Your task to perform on an android device: open device folders in google photos Image 0: 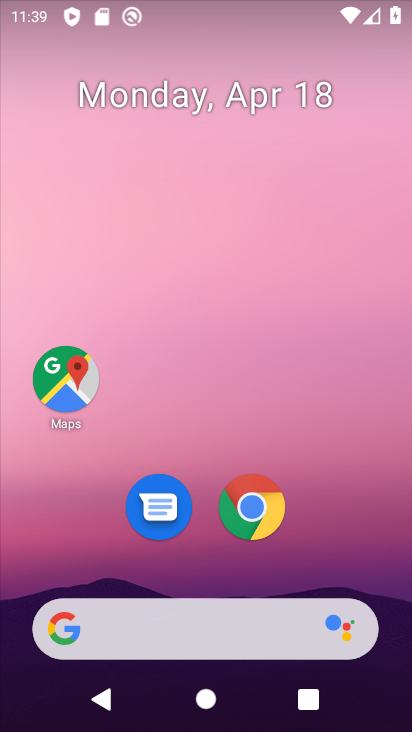
Step 0: drag from (202, 561) to (243, 16)
Your task to perform on an android device: open device folders in google photos Image 1: 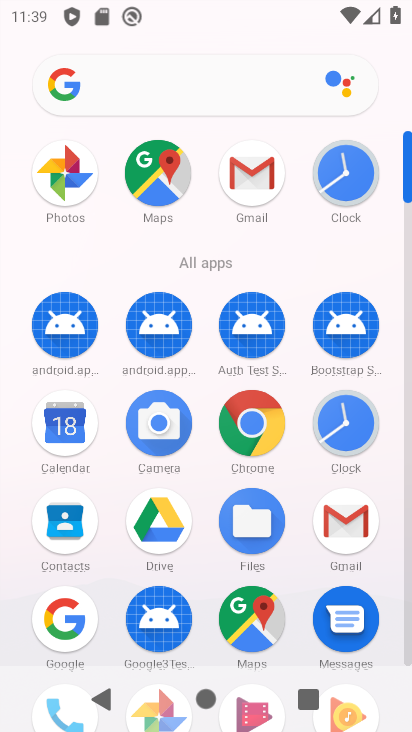
Step 1: drag from (206, 563) to (215, 155)
Your task to perform on an android device: open device folders in google photos Image 2: 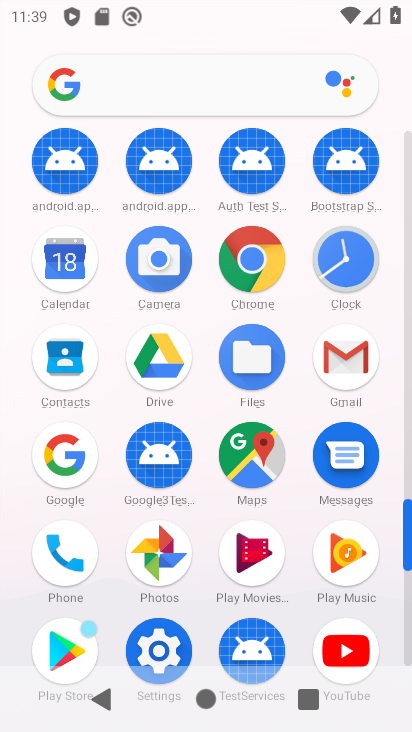
Step 2: click (156, 546)
Your task to perform on an android device: open device folders in google photos Image 3: 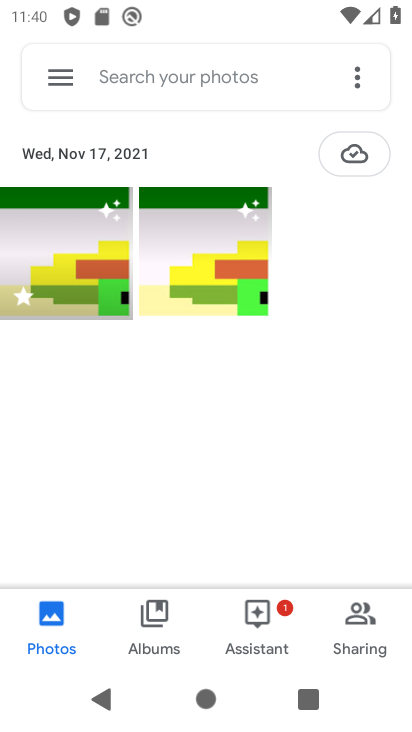
Step 3: click (58, 61)
Your task to perform on an android device: open device folders in google photos Image 4: 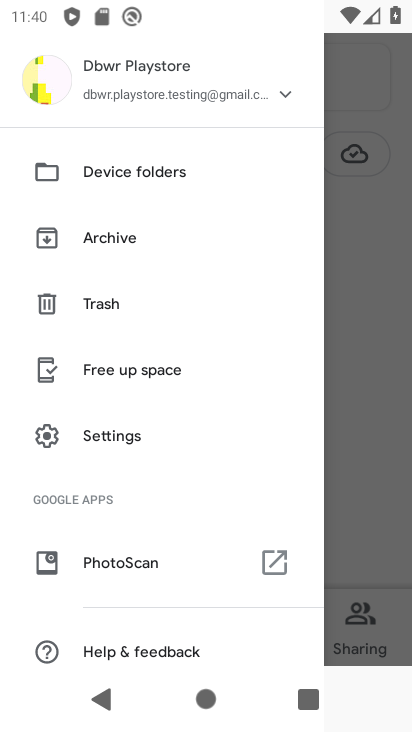
Step 4: click (145, 159)
Your task to perform on an android device: open device folders in google photos Image 5: 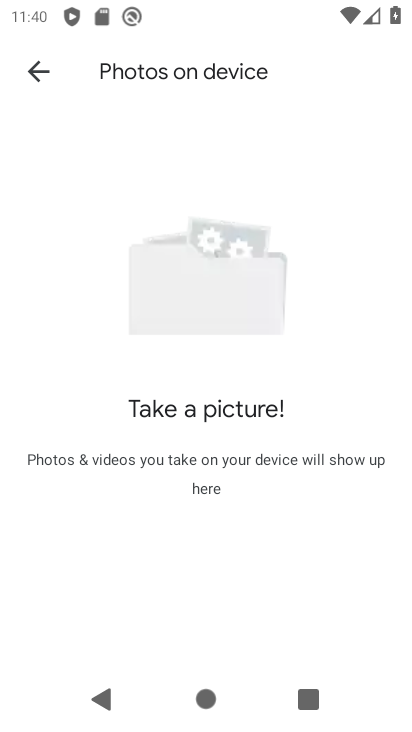
Step 5: task complete